Your task to perform on an android device: turn off wifi Image 0: 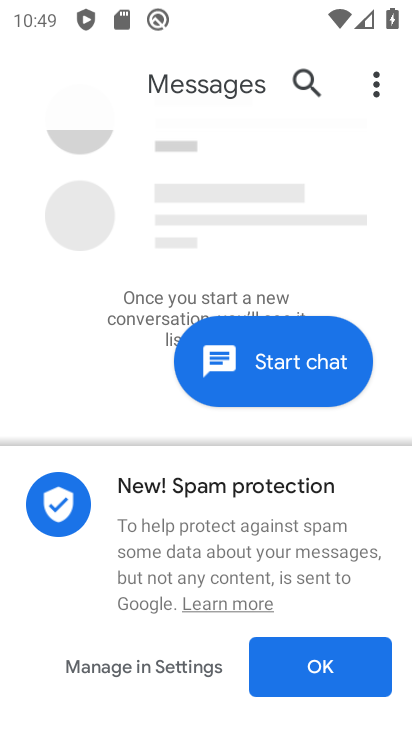
Step 0: press home button
Your task to perform on an android device: turn off wifi Image 1: 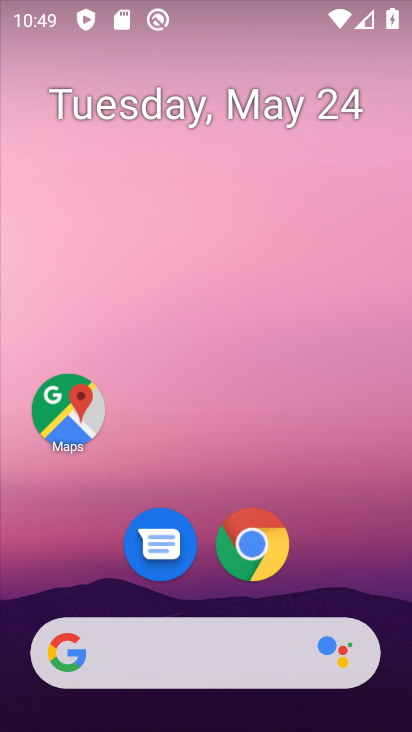
Step 1: drag from (213, 591) to (171, 69)
Your task to perform on an android device: turn off wifi Image 2: 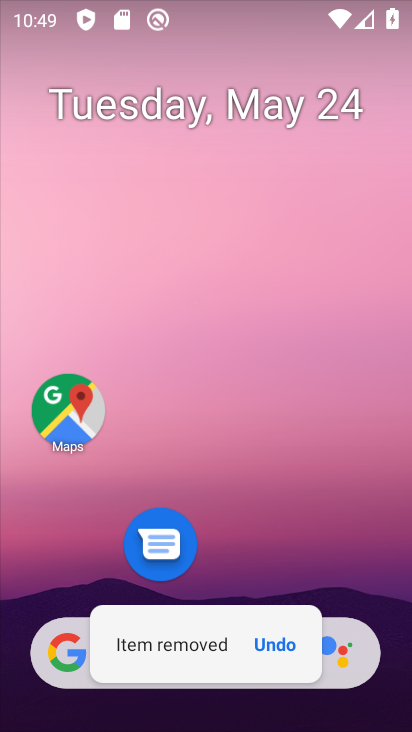
Step 2: click (239, 433)
Your task to perform on an android device: turn off wifi Image 3: 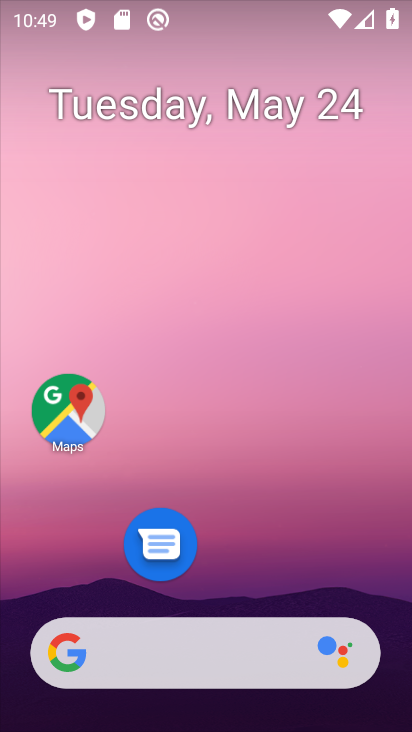
Step 3: drag from (198, 649) to (151, 110)
Your task to perform on an android device: turn off wifi Image 4: 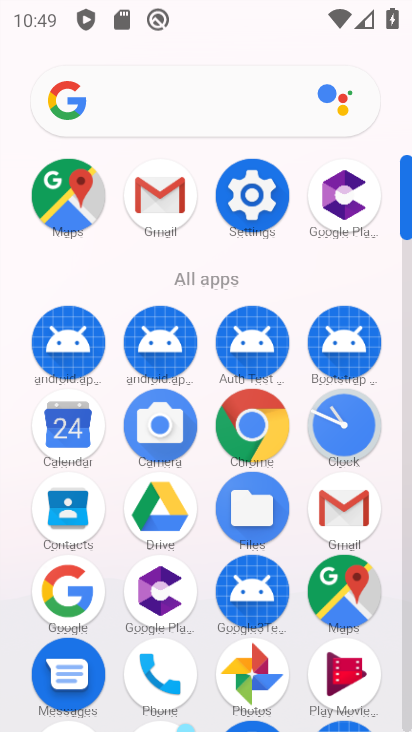
Step 4: click (238, 203)
Your task to perform on an android device: turn off wifi Image 5: 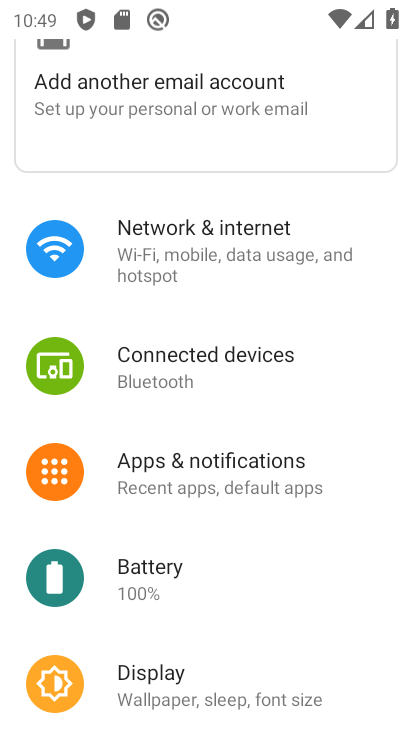
Step 5: click (193, 243)
Your task to perform on an android device: turn off wifi Image 6: 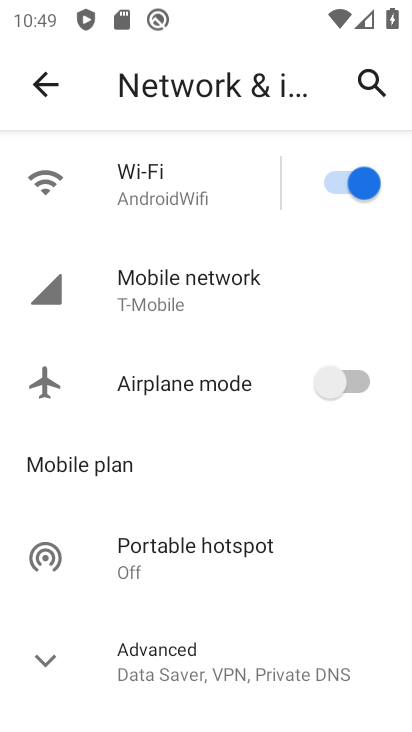
Step 6: click (344, 183)
Your task to perform on an android device: turn off wifi Image 7: 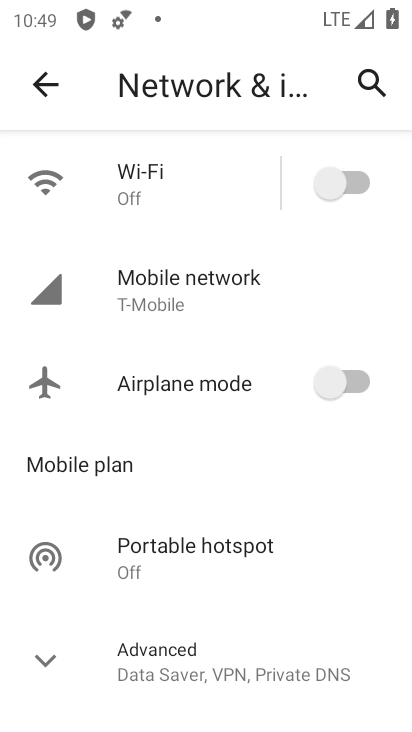
Step 7: task complete